Your task to perform on an android device: Open Youtube and go to the subscriptions tab Image 0: 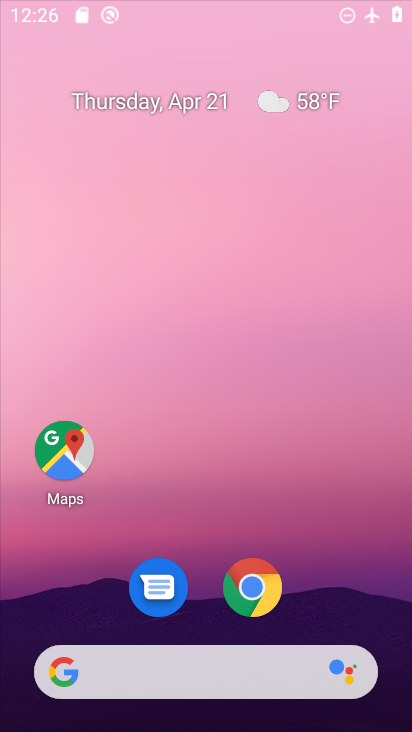
Step 0: click (275, 344)
Your task to perform on an android device: Open Youtube and go to the subscriptions tab Image 1: 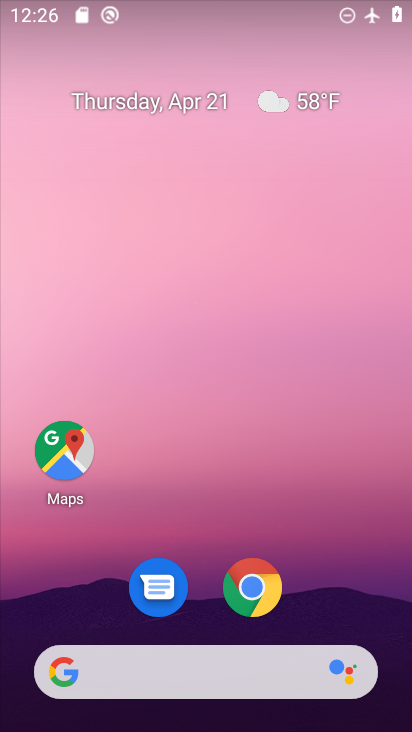
Step 1: click (208, 645)
Your task to perform on an android device: Open Youtube and go to the subscriptions tab Image 2: 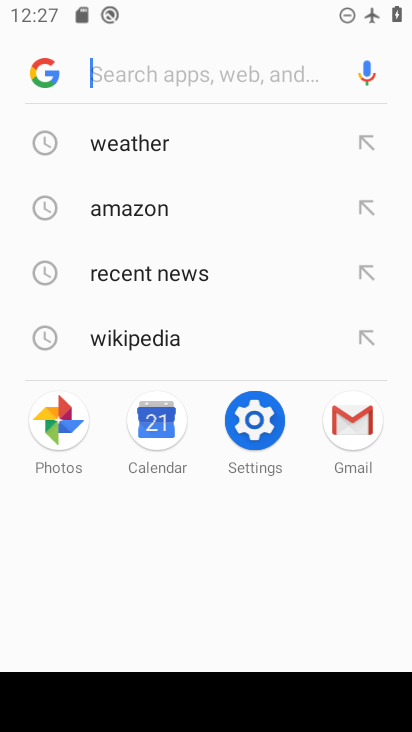
Step 2: press home button
Your task to perform on an android device: Open Youtube and go to the subscriptions tab Image 3: 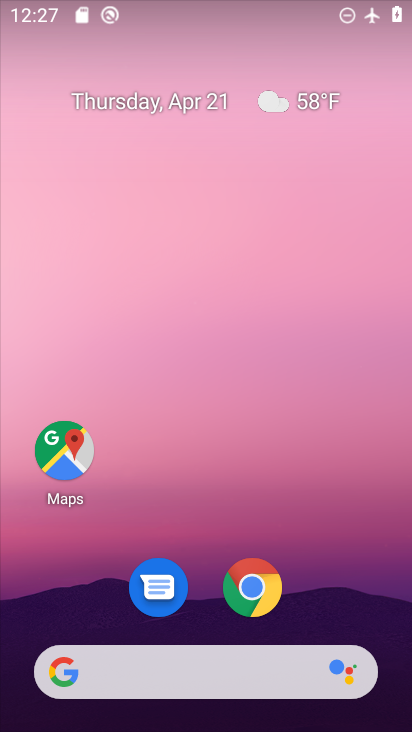
Step 3: drag from (204, 594) to (343, 0)
Your task to perform on an android device: Open Youtube and go to the subscriptions tab Image 4: 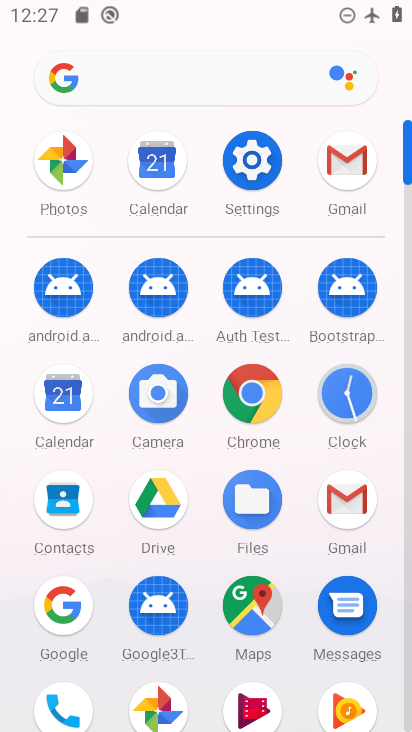
Step 4: drag from (279, 558) to (333, 269)
Your task to perform on an android device: Open Youtube and go to the subscriptions tab Image 5: 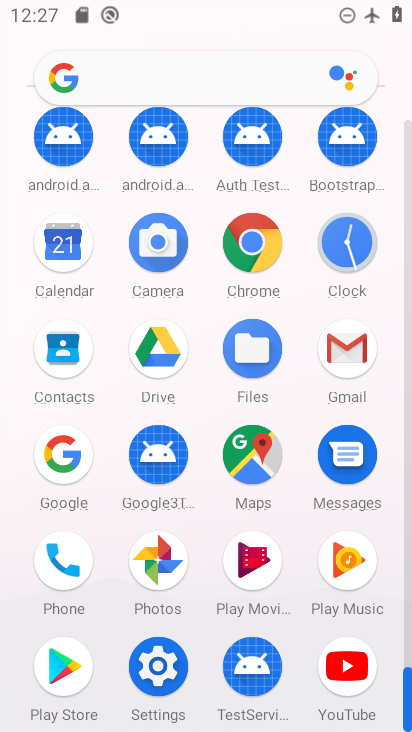
Step 5: click (359, 685)
Your task to perform on an android device: Open Youtube and go to the subscriptions tab Image 6: 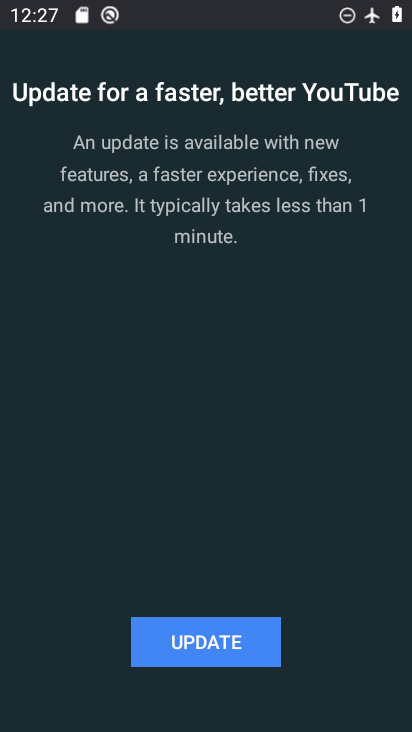
Step 6: click (222, 643)
Your task to perform on an android device: Open Youtube and go to the subscriptions tab Image 7: 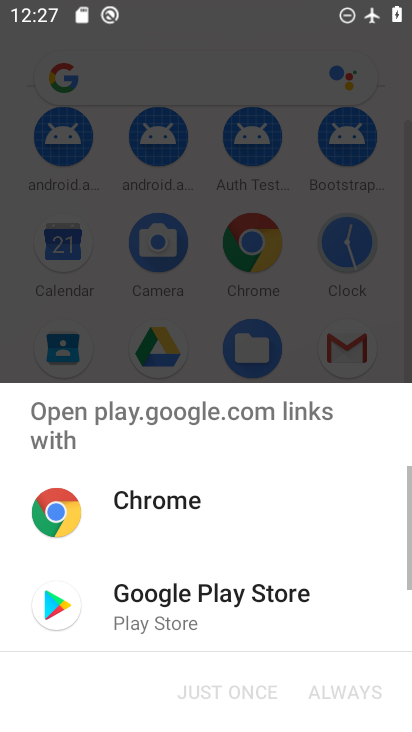
Step 7: task complete